Your task to perform on an android device: What is the news today? Image 0: 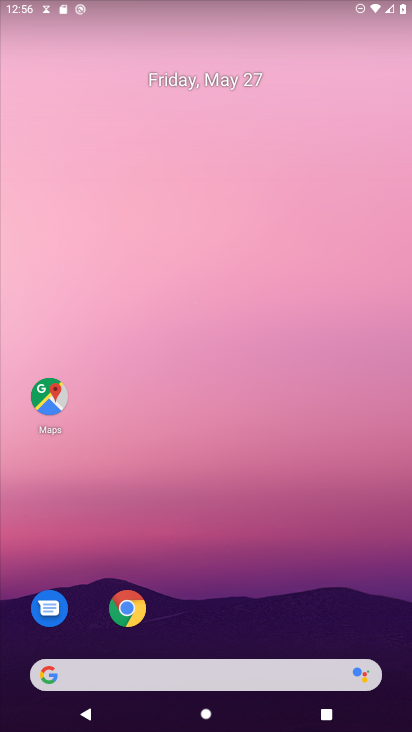
Step 0: press home button
Your task to perform on an android device: What is the news today? Image 1: 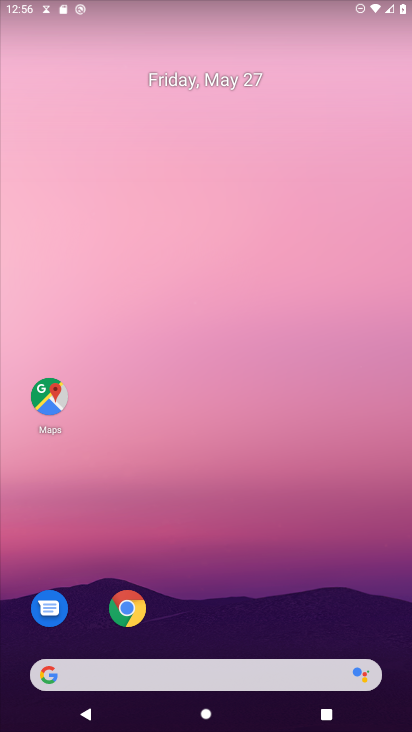
Step 1: click (52, 679)
Your task to perform on an android device: What is the news today? Image 2: 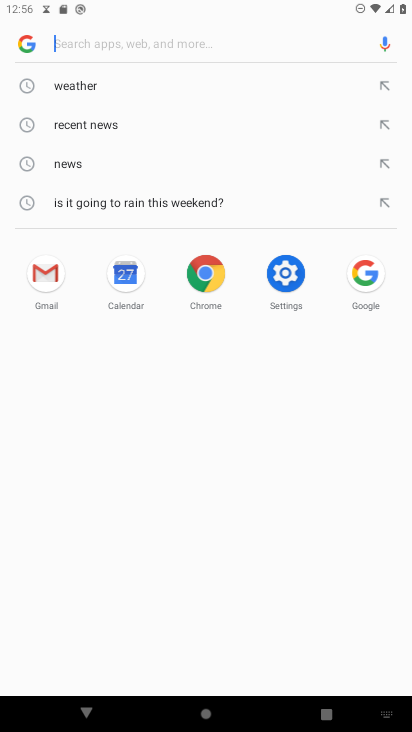
Step 2: click (74, 164)
Your task to perform on an android device: What is the news today? Image 3: 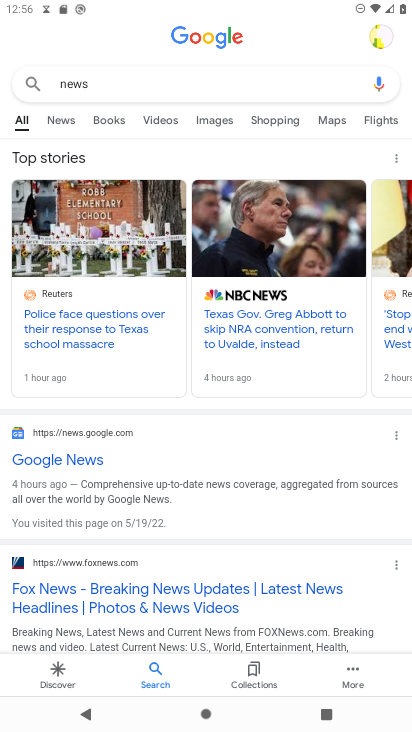
Step 3: click (62, 123)
Your task to perform on an android device: What is the news today? Image 4: 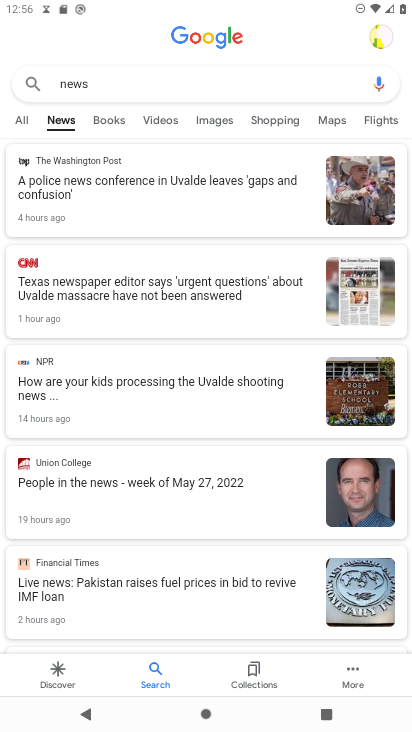
Step 4: task complete